Your task to perform on an android device: Show me recent news Image 0: 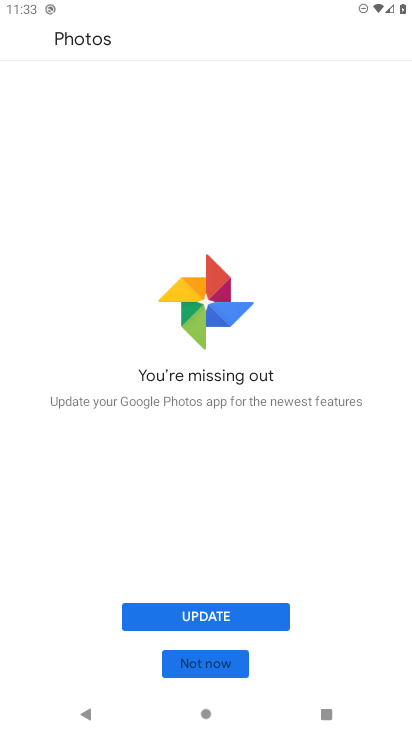
Step 0: click (225, 667)
Your task to perform on an android device: Show me recent news Image 1: 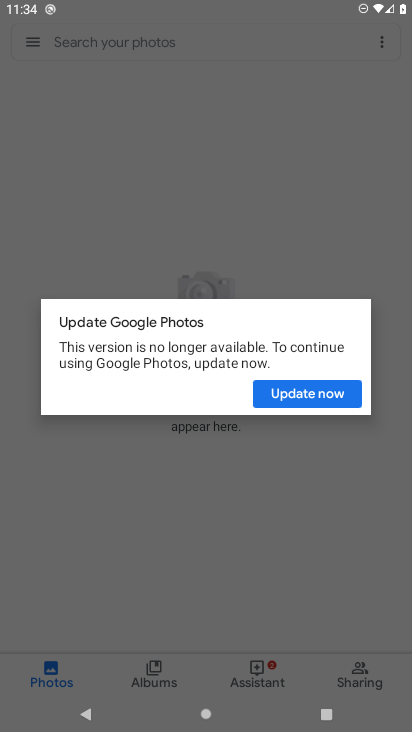
Step 1: press home button
Your task to perform on an android device: Show me recent news Image 2: 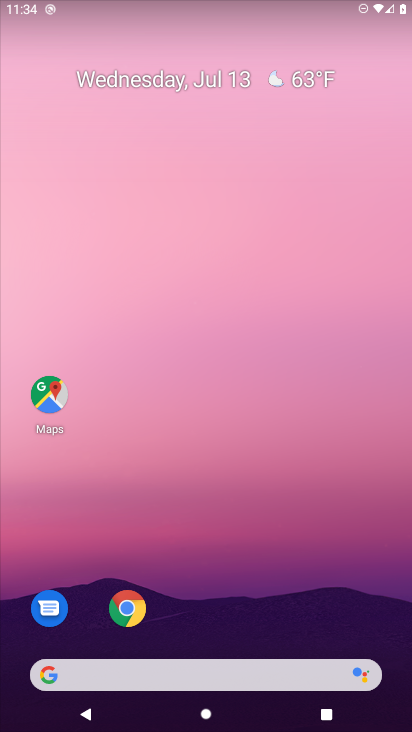
Step 2: click (44, 670)
Your task to perform on an android device: Show me recent news Image 3: 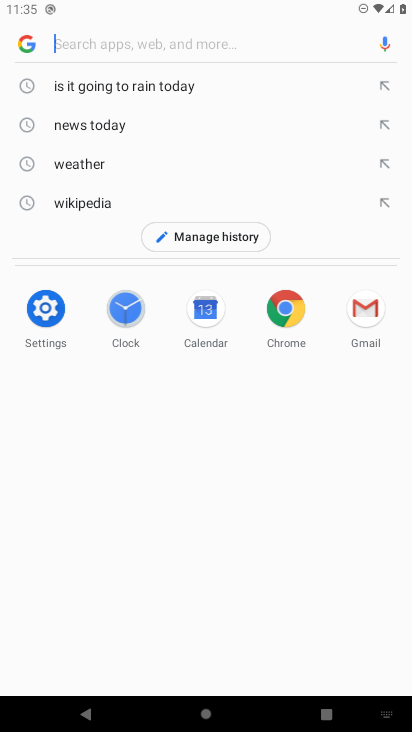
Step 3: type " recent news"
Your task to perform on an android device: Show me recent news Image 4: 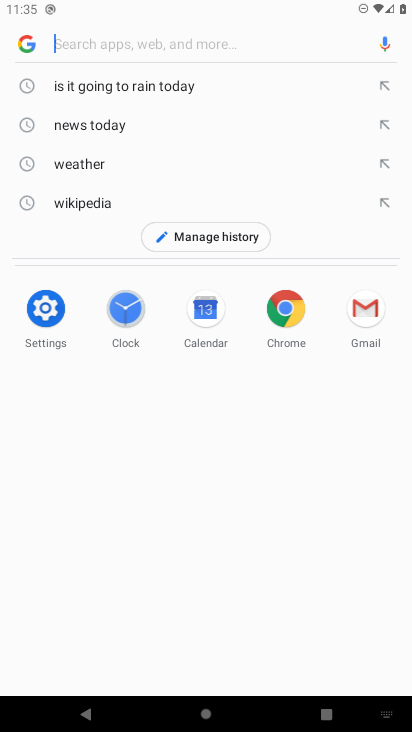
Step 4: click (76, 36)
Your task to perform on an android device: Show me recent news Image 5: 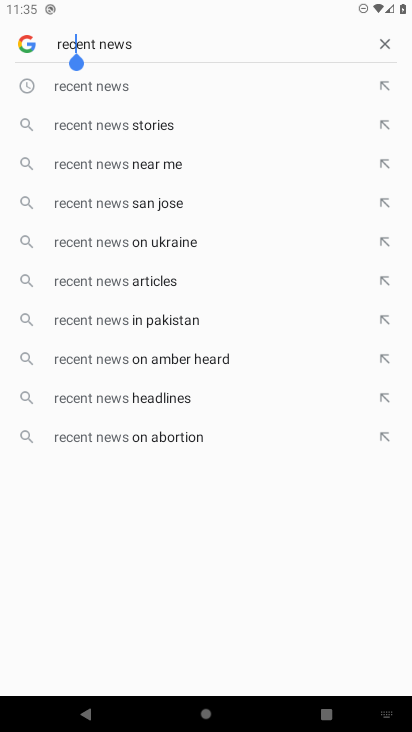
Step 5: click (114, 92)
Your task to perform on an android device: Show me recent news Image 6: 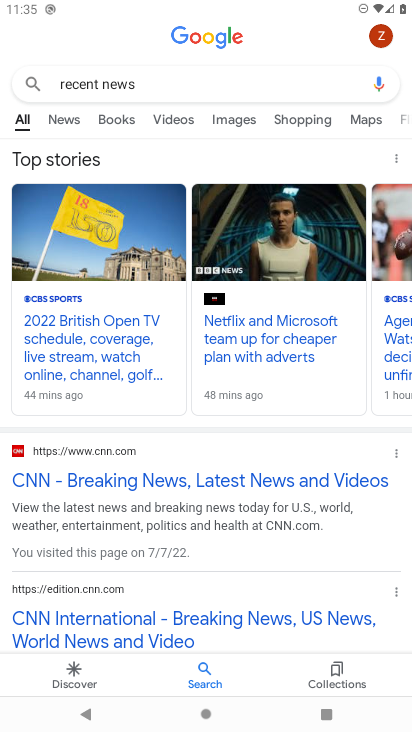
Step 6: task complete